Your task to perform on an android device: Open Android settings Image 0: 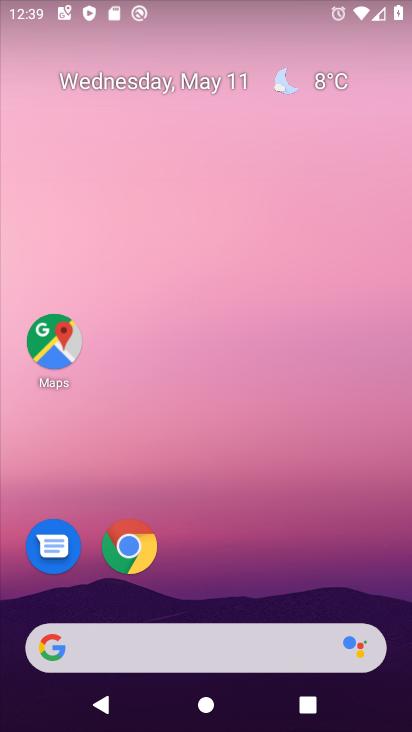
Step 0: drag from (219, 659) to (283, 146)
Your task to perform on an android device: Open Android settings Image 1: 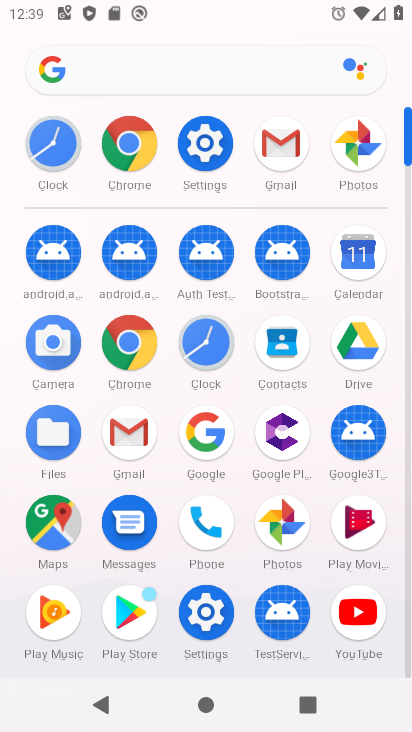
Step 1: click (208, 145)
Your task to perform on an android device: Open Android settings Image 2: 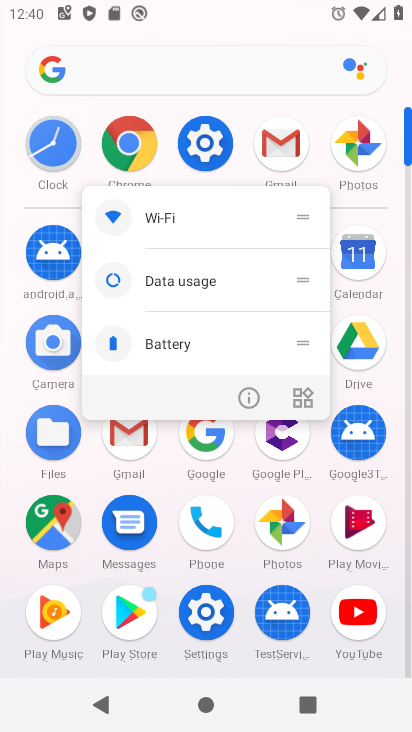
Step 2: click (217, 139)
Your task to perform on an android device: Open Android settings Image 3: 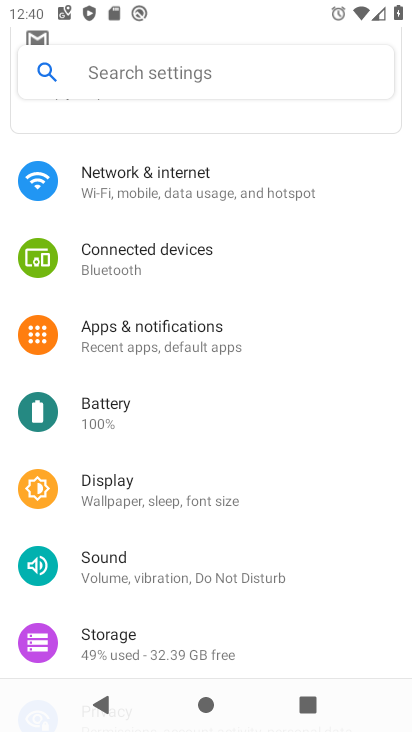
Step 3: task complete